Your task to perform on an android device: Go to Reddit.com Image 0: 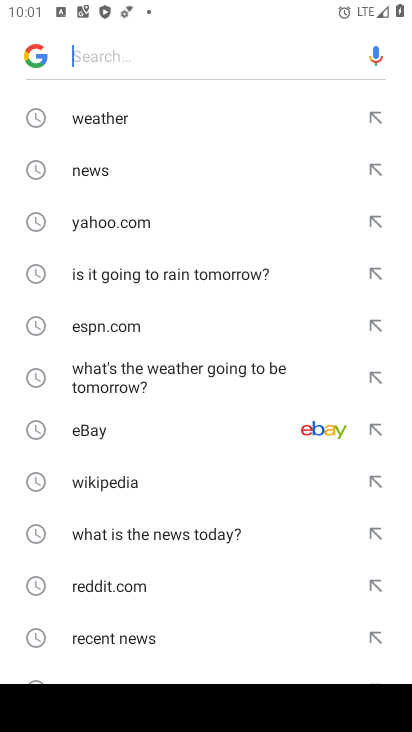
Step 0: press home button
Your task to perform on an android device: Go to Reddit.com Image 1: 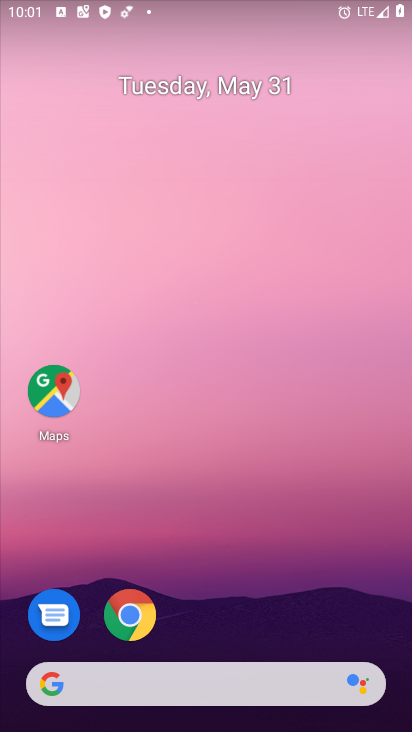
Step 1: click (130, 614)
Your task to perform on an android device: Go to Reddit.com Image 2: 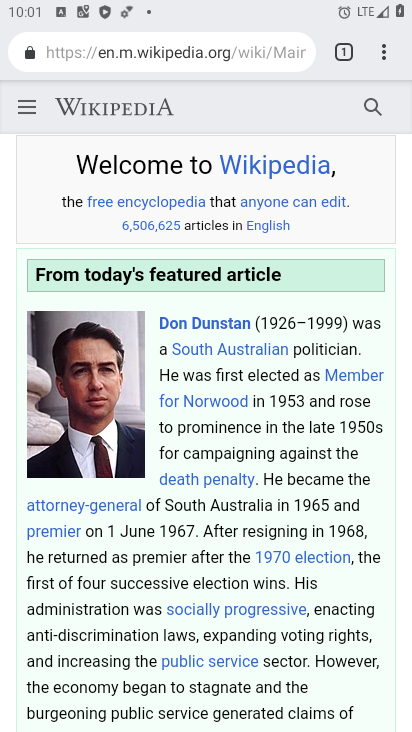
Step 2: click (304, 47)
Your task to perform on an android device: Go to Reddit.com Image 3: 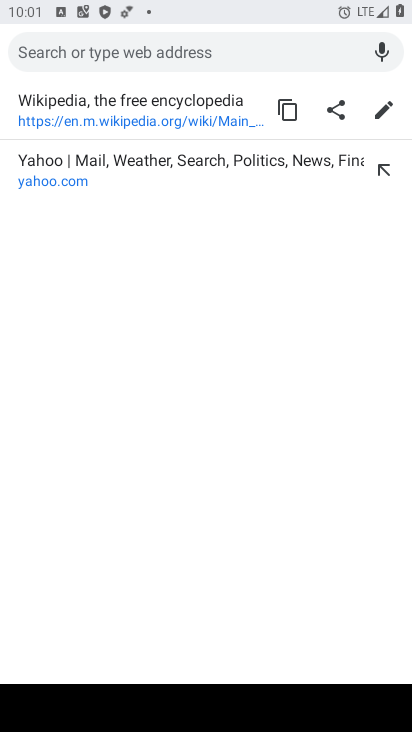
Step 3: type "reddit.com"
Your task to perform on an android device: Go to Reddit.com Image 4: 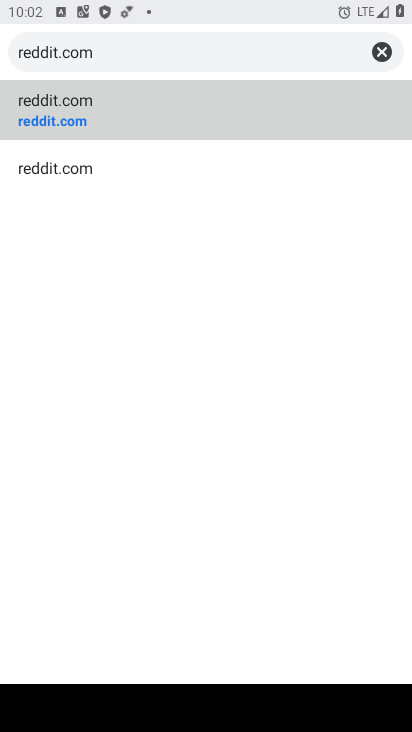
Step 4: click (42, 93)
Your task to perform on an android device: Go to Reddit.com Image 5: 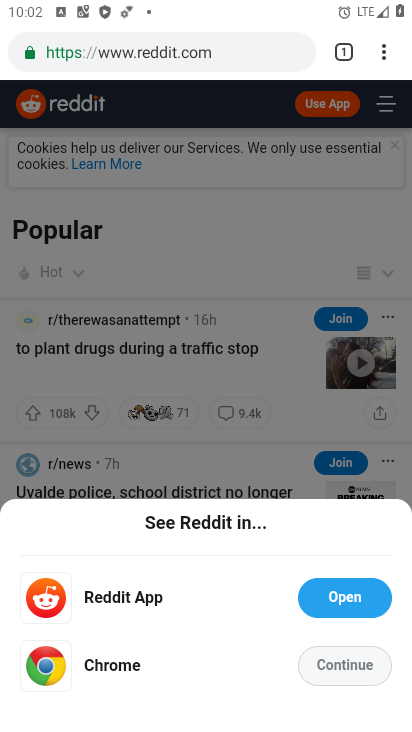
Step 5: task complete